Your task to perform on an android device: Empty the shopping cart on ebay. Image 0: 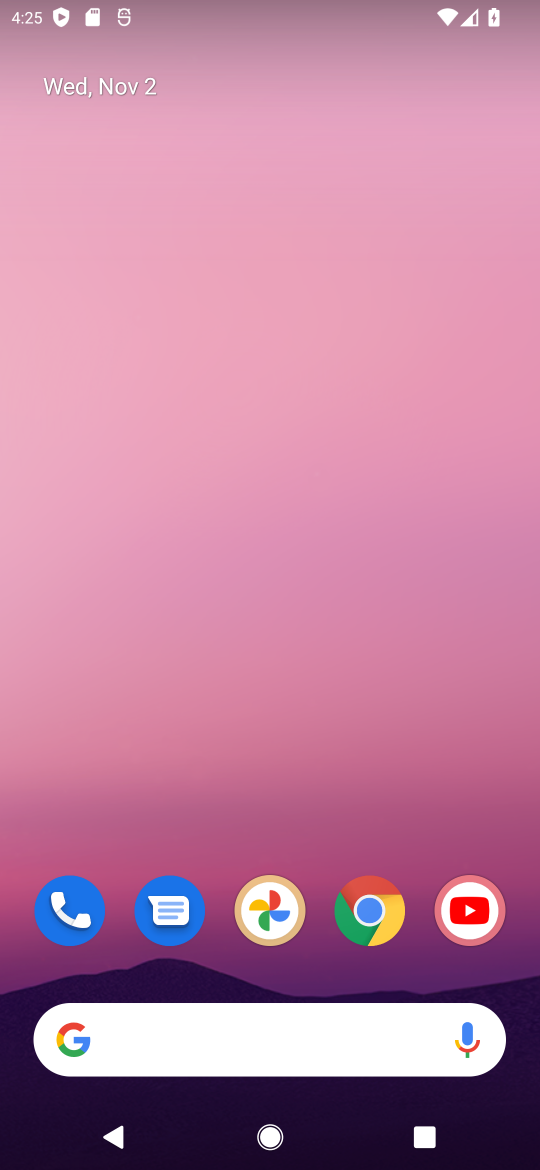
Step 0: click (395, 916)
Your task to perform on an android device: Empty the shopping cart on ebay. Image 1: 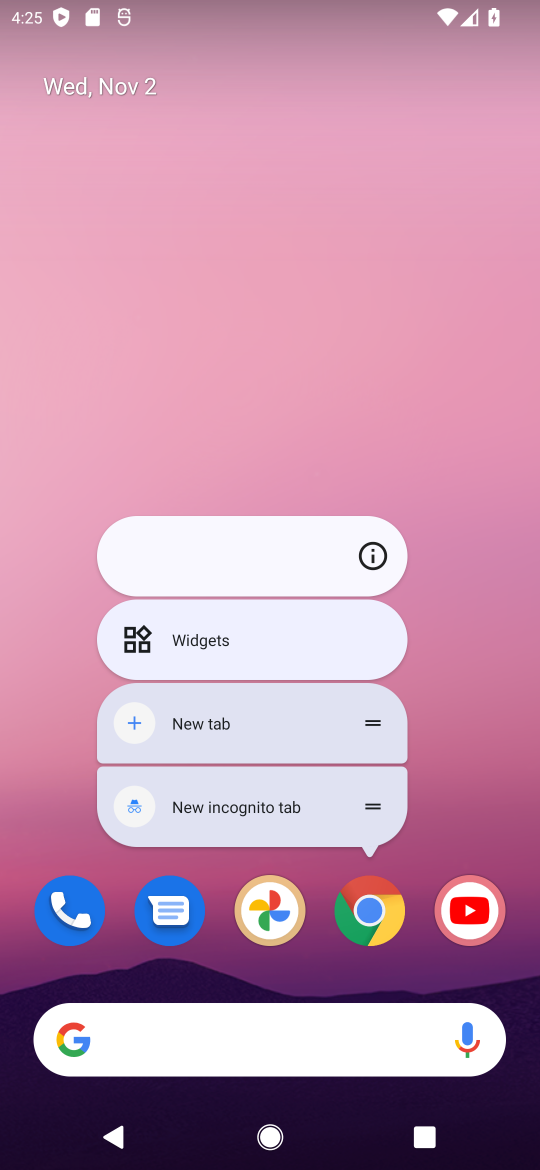
Step 1: click (366, 913)
Your task to perform on an android device: Empty the shopping cart on ebay. Image 2: 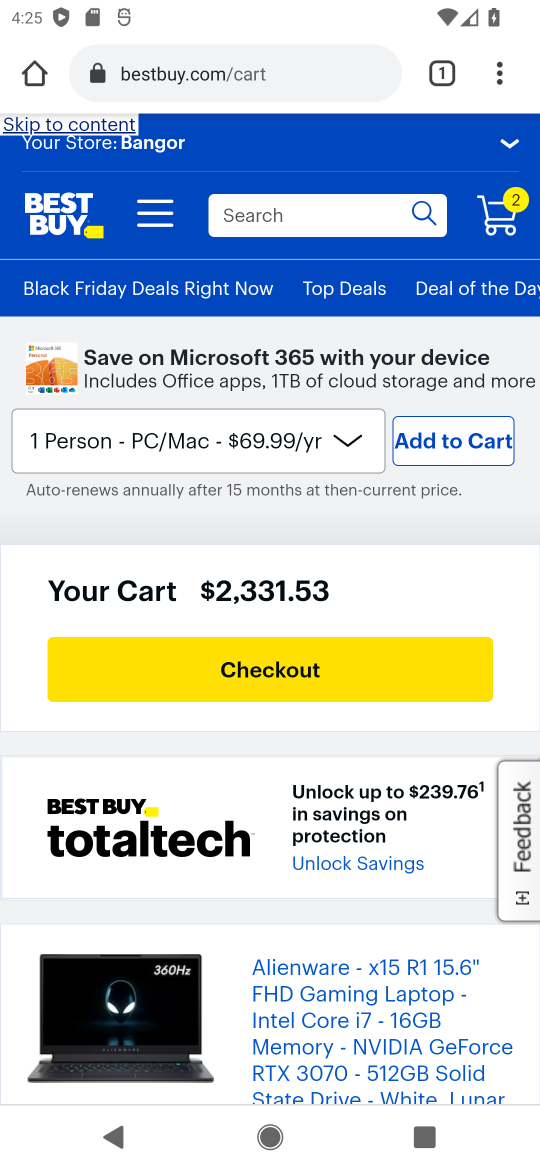
Step 2: click (204, 86)
Your task to perform on an android device: Empty the shopping cart on ebay. Image 3: 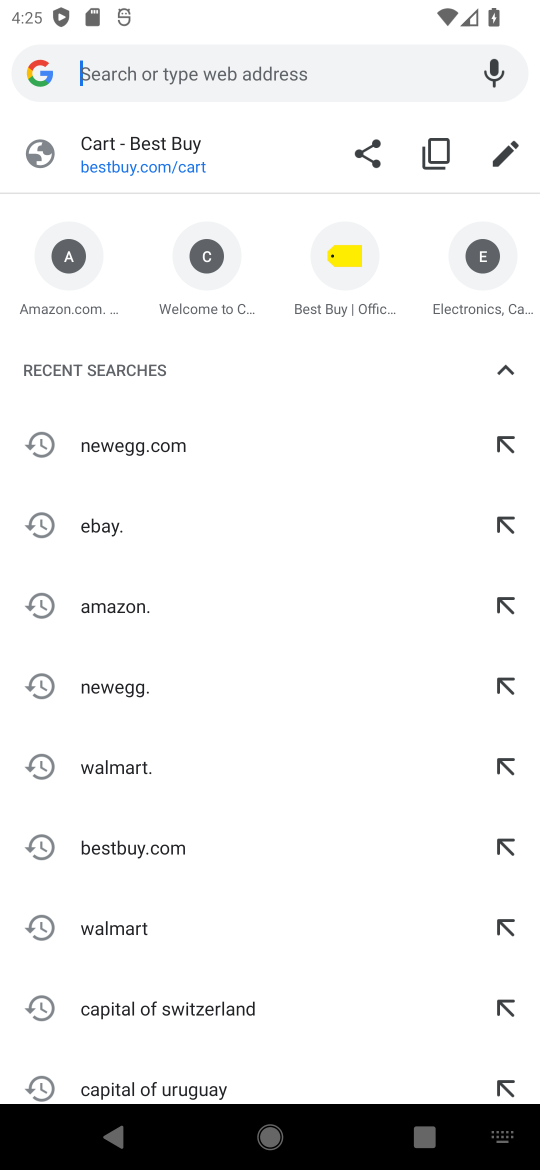
Step 3: type "ebay"
Your task to perform on an android device: Empty the shopping cart on ebay. Image 4: 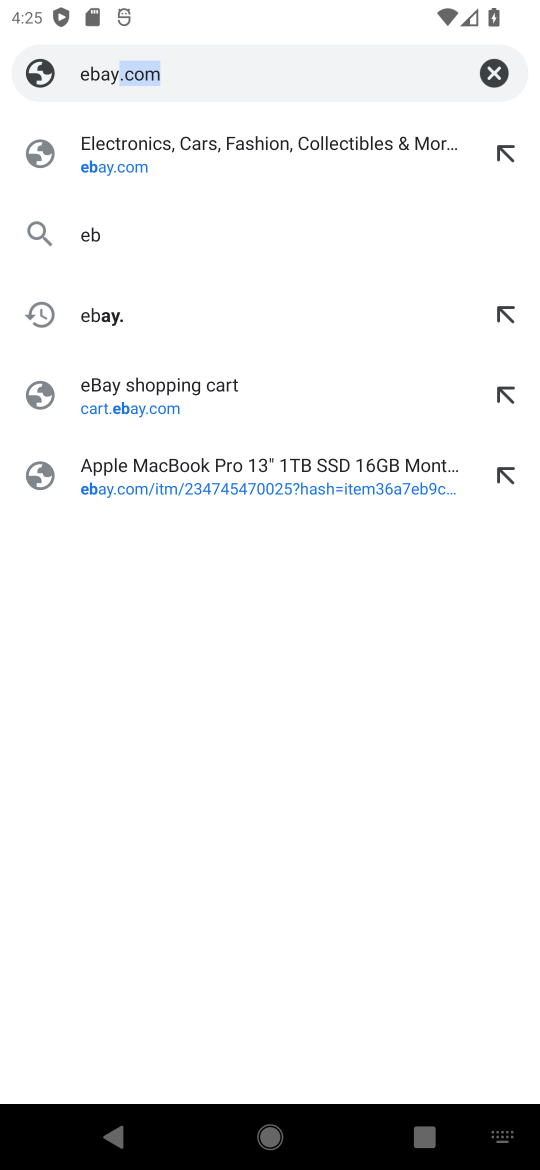
Step 4: type ""
Your task to perform on an android device: Empty the shopping cart on ebay. Image 5: 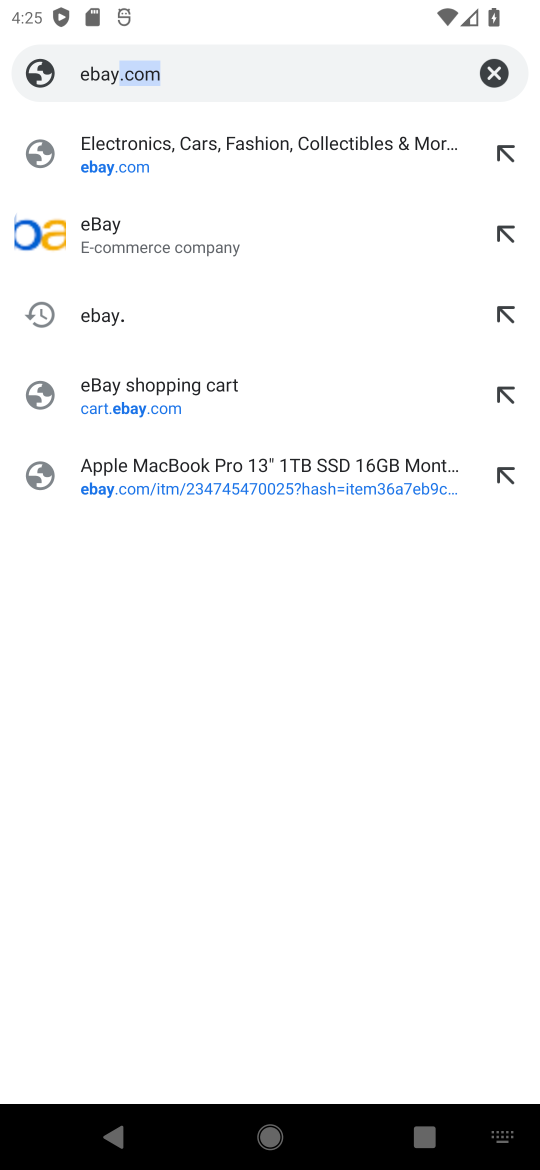
Step 5: click (184, 164)
Your task to perform on an android device: Empty the shopping cart on ebay. Image 6: 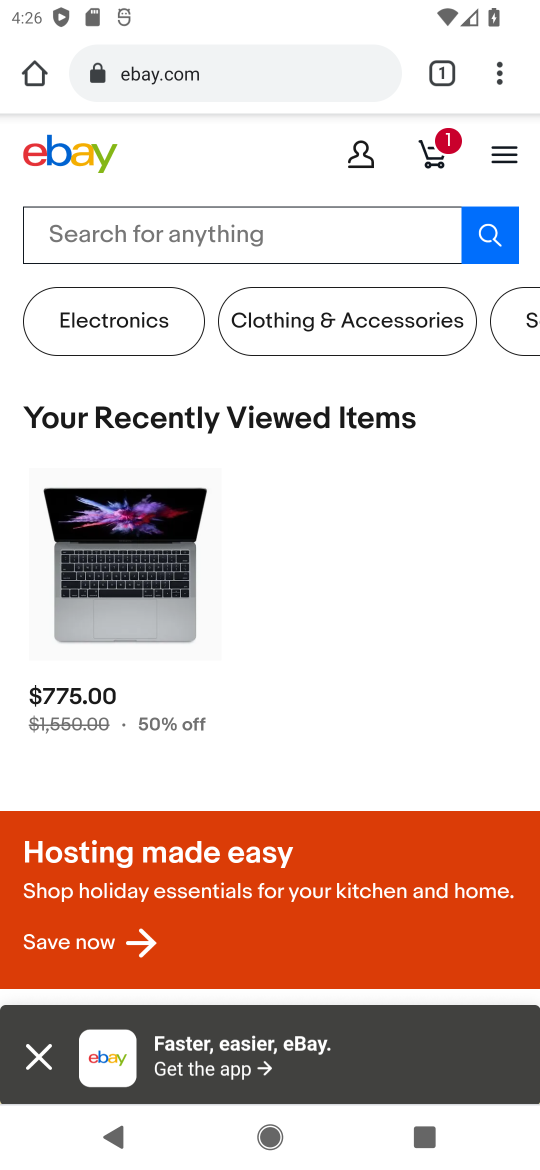
Step 6: click (444, 147)
Your task to perform on an android device: Empty the shopping cart on ebay. Image 7: 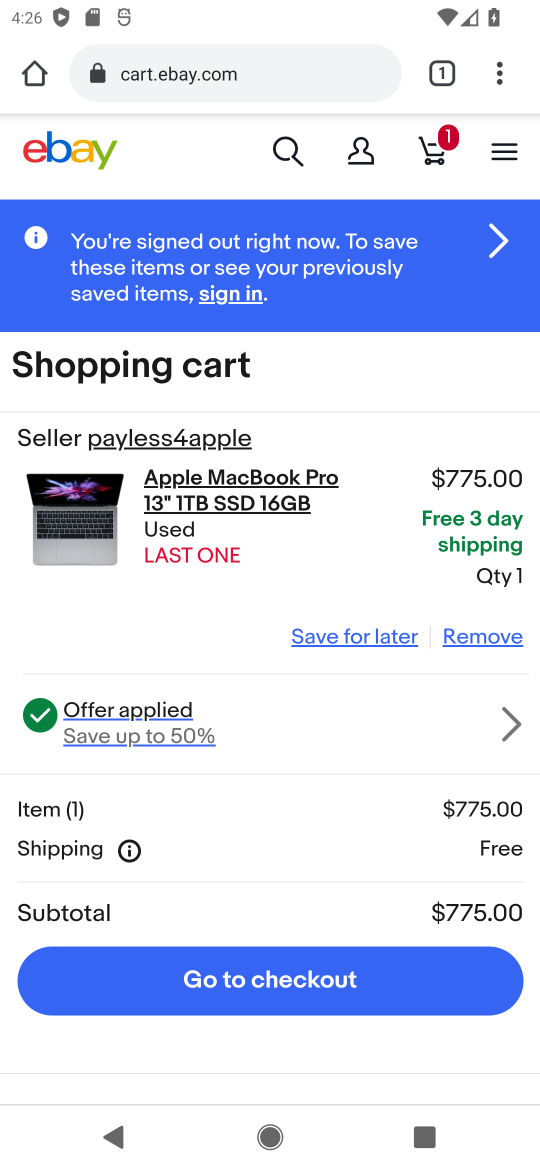
Step 7: click (480, 645)
Your task to perform on an android device: Empty the shopping cart on ebay. Image 8: 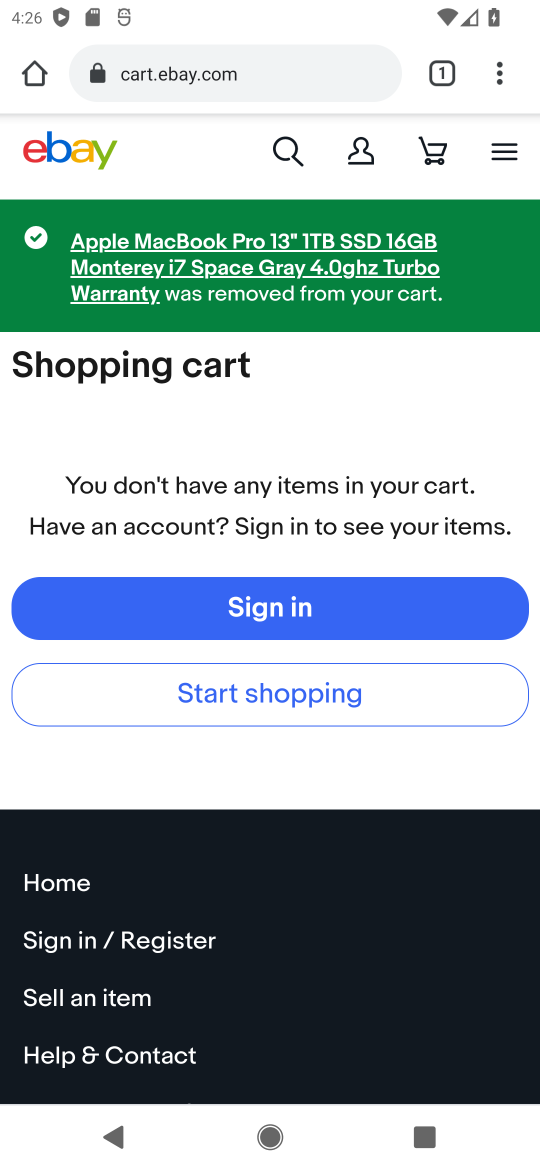
Step 8: click (473, 674)
Your task to perform on an android device: Empty the shopping cart on ebay. Image 9: 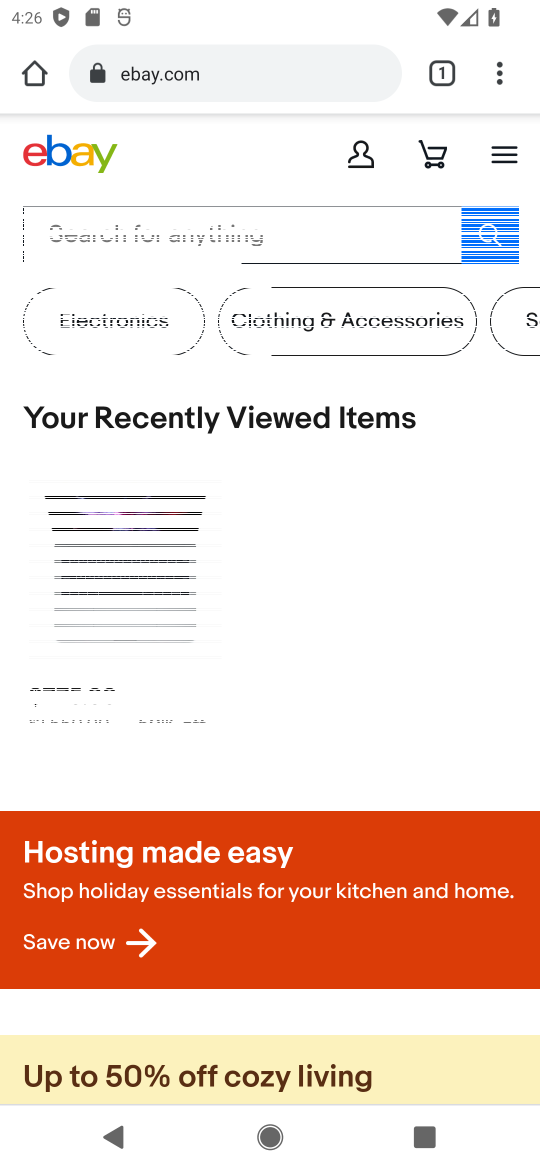
Step 9: drag from (380, 703) to (397, 278)
Your task to perform on an android device: Empty the shopping cart on ebay. Image 10: 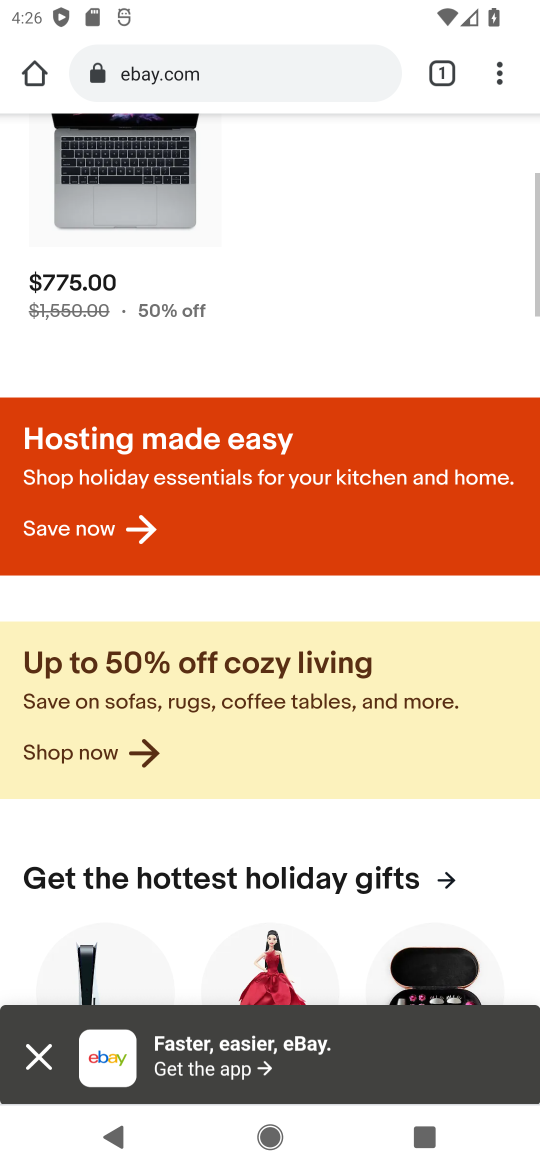
Step 10: drag from (320, 417) to (320, 314)
Your task to perform on an android device: Empty the shopping cart on ebay. Image 11: 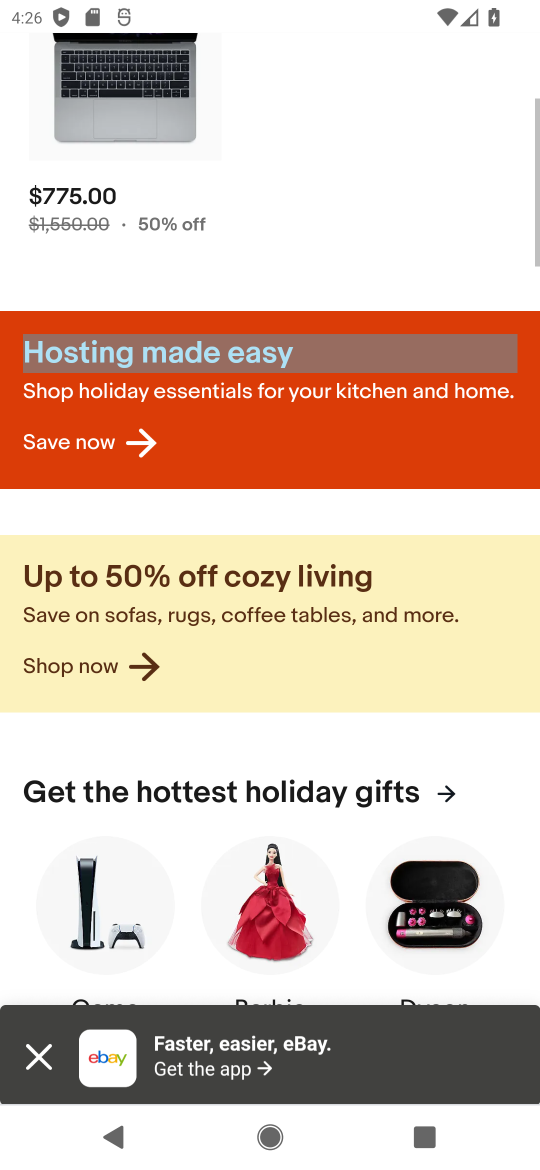
Step 11: drag from (273, 752) to (298, 274)
Your task to perform on an android device: Empty the shopping cart on ebay. Image 12: 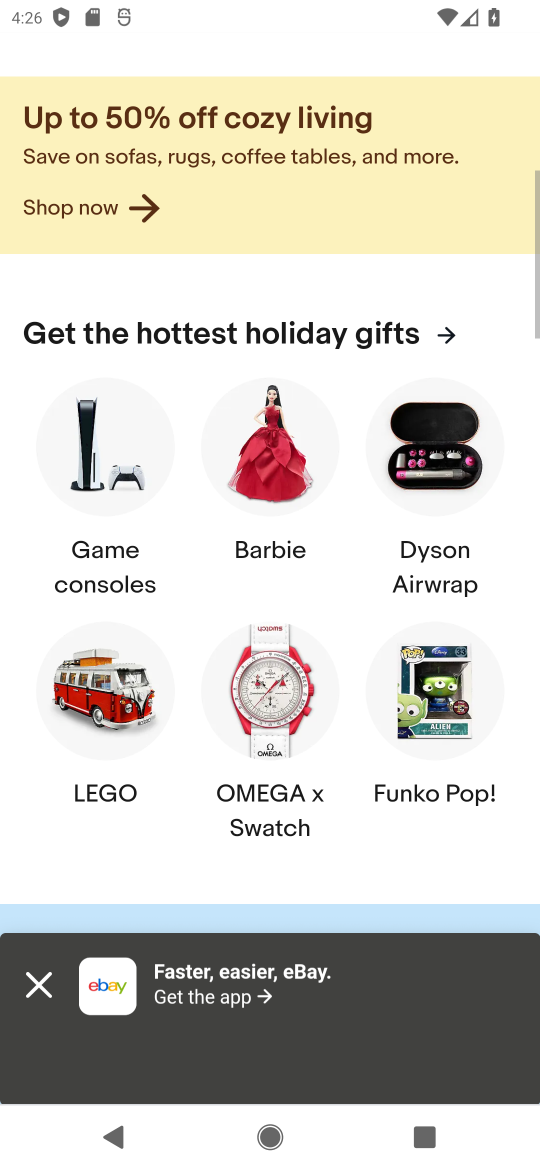
Step 12: drag from (226, 616) to (265, 300)
Your task to perform on an android device: Empty the shopping cart on ebay. Image 13: 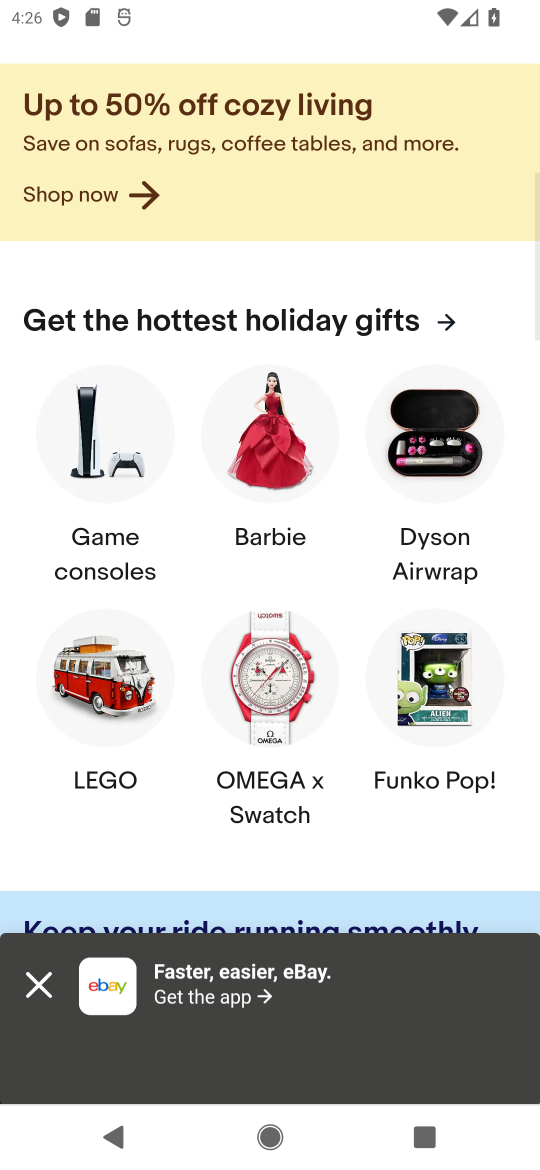
Step 13: drag from (213, 710) to (271, 420)
Your task to perform on an android device: Empty the shopping cart on ebay. Image 14: 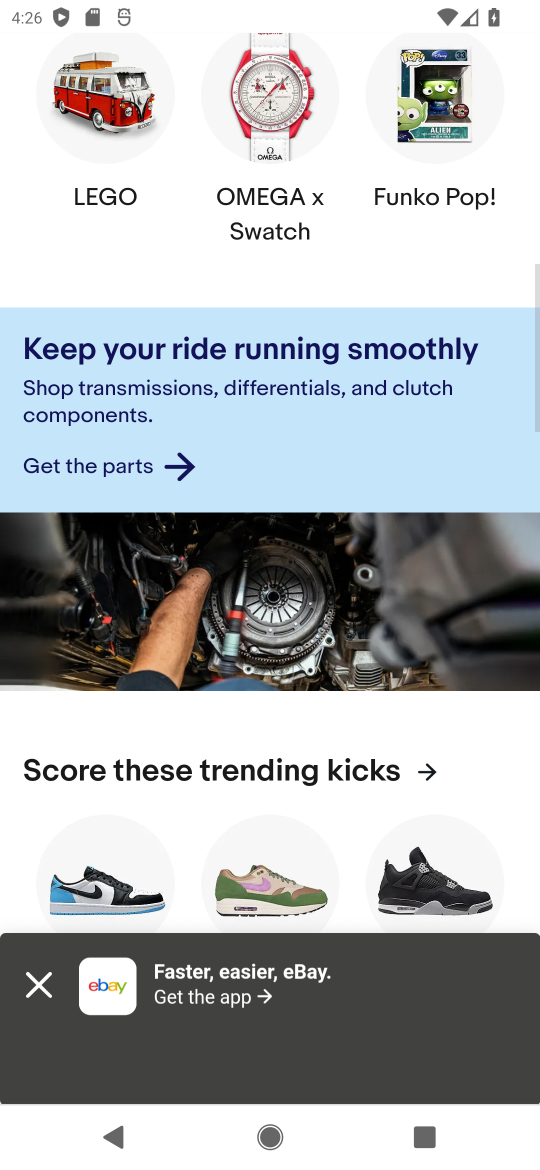
Step 14: click (30, 992)
Your task to perform on an android device: Empty the shopping cart on ebay. Image 15: 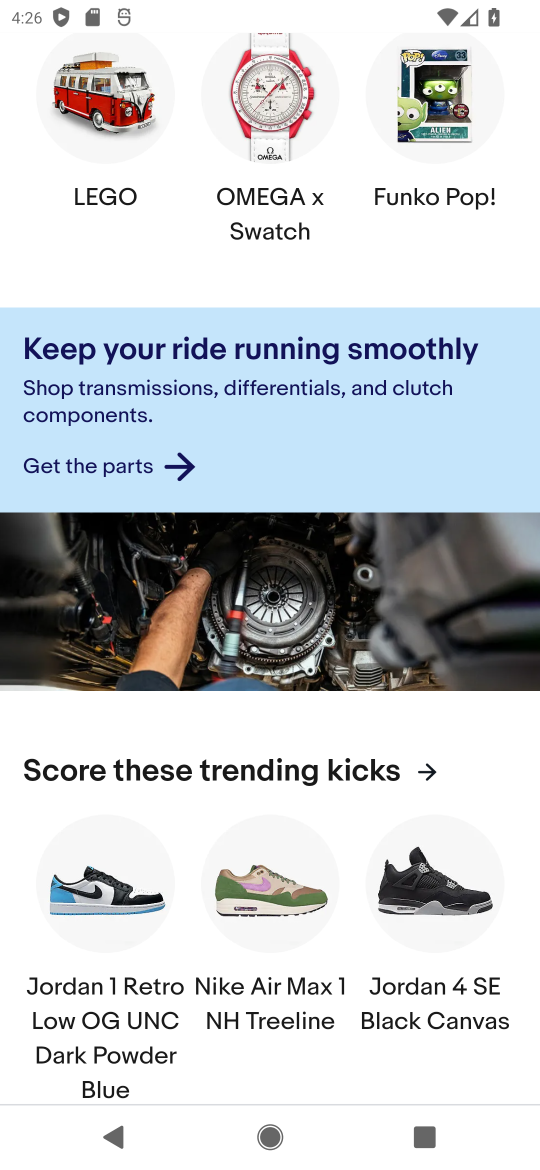
Step 15: task complete